Your task to perform on an android device: Go to internet settings Image 0: 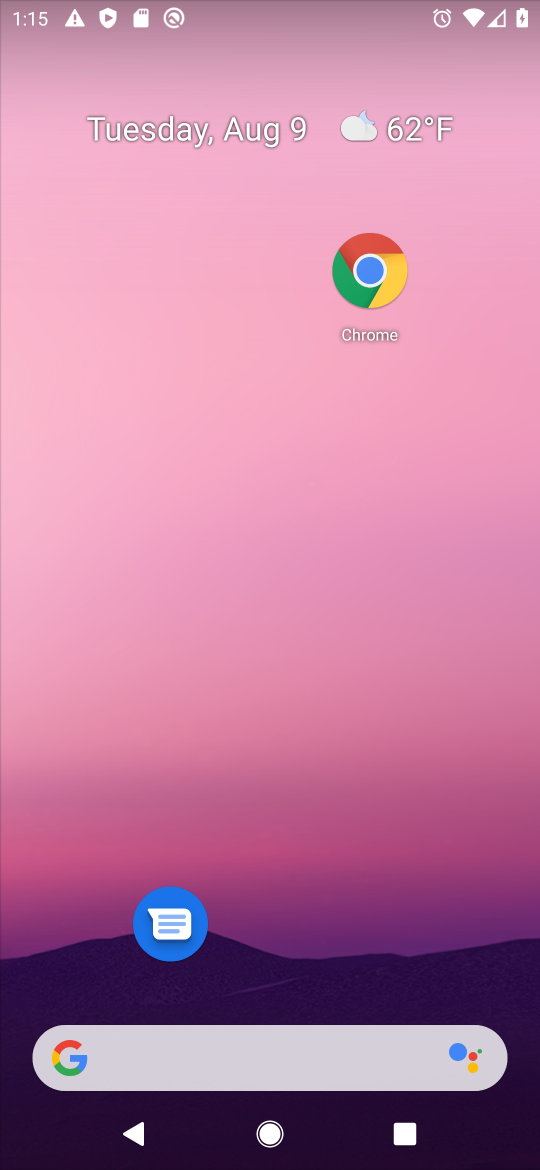
Step 0: drag from (331, 989) to (355, 76)
Your task to perform on an android device: Go to internet settings Image 1: 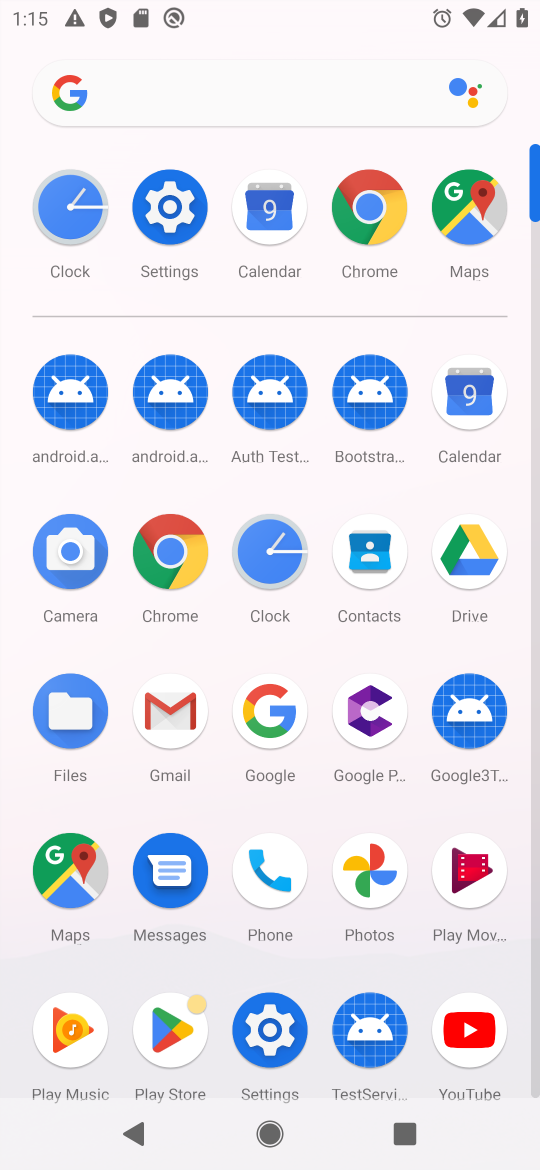
Step 1: click (185, 268)
Your task to perform on an android device: Go to internet settings Image 2: 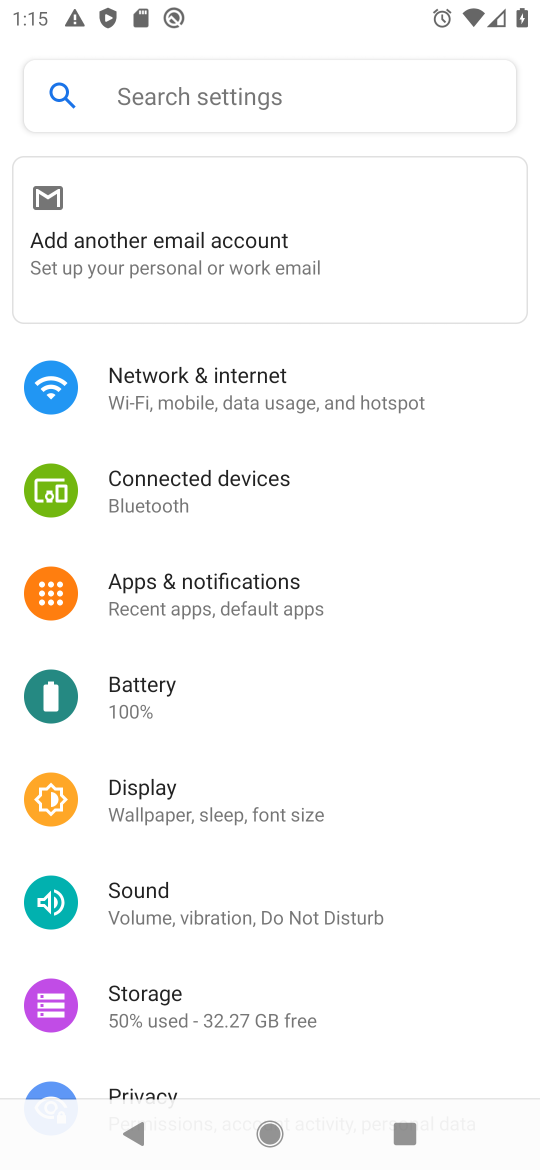
Step 2: click (222, 383)
Your task to perform on an android device: Go to internet settings Image 3: 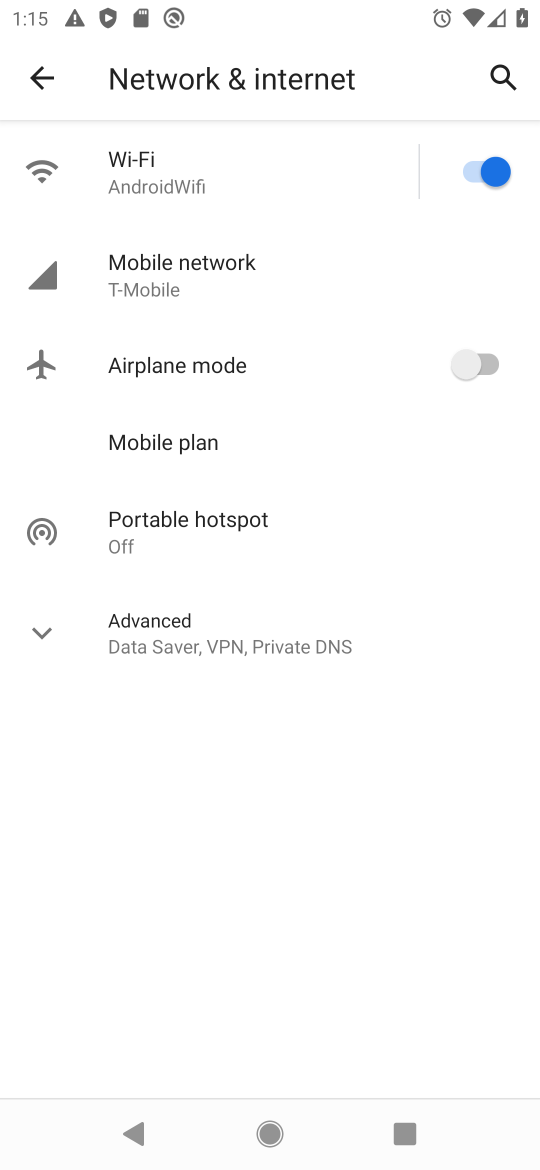
Step 3: task complete